Your task to perform on an android device: clear all cookies in the chrome app Image 0: 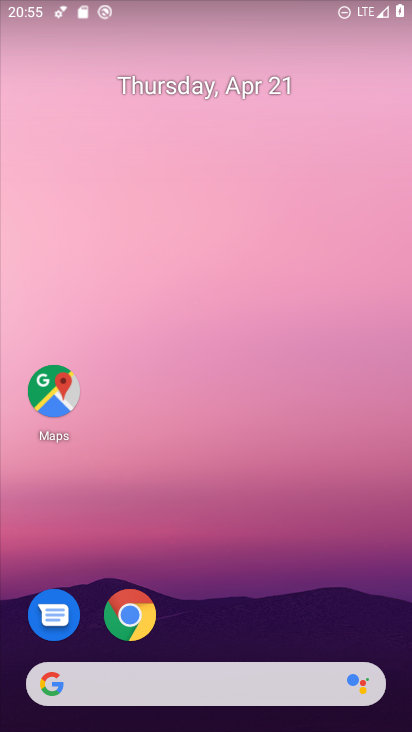
Step 0: drag from (222, 134) to (235, 67)
Your task to perform on an android device: clear all cookies in the chrome app Image 1: 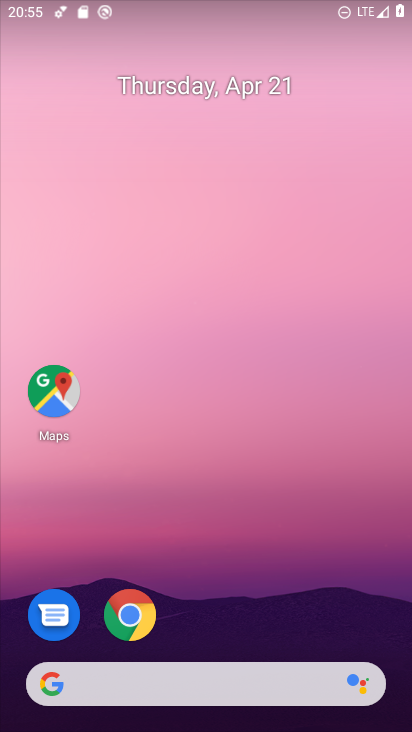
Step 1: click (136, 613)
Your task to perform on an android device: clear all cookies in the chrome app Image 2: 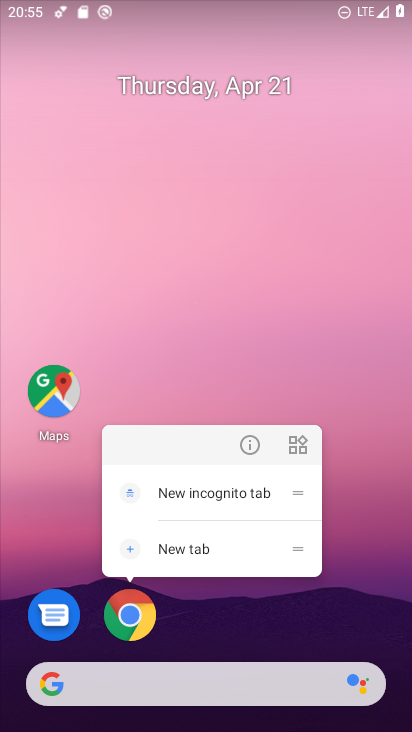
Step 2: click (246, 449)
Your task to perform on an android device: clear all cookies in the chrome app Image 3: 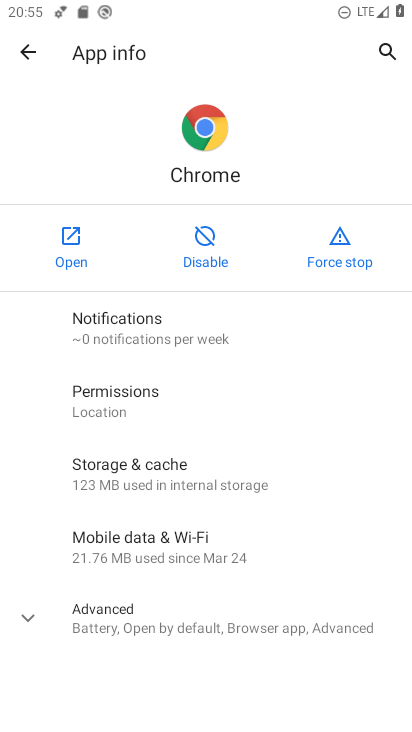
Step 3: click (61, 244)
Your task to perform on an android device: clear all cookies in the chrome app Image 4: 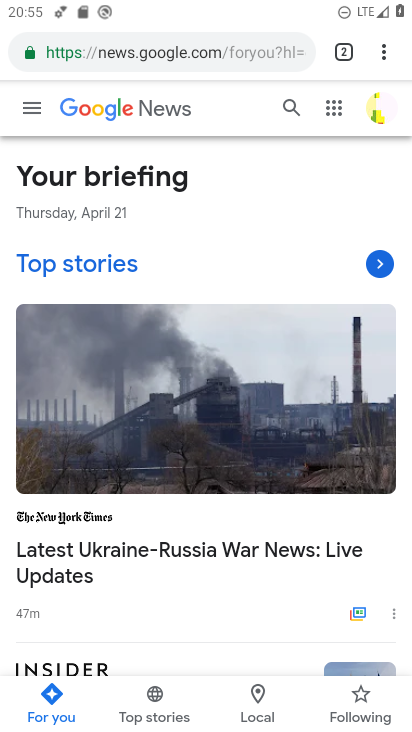
Step 4: drag from (210, 605) to (264, 238)
Your task to perform on an android device: clear all cookies in the chrome app Image 5: 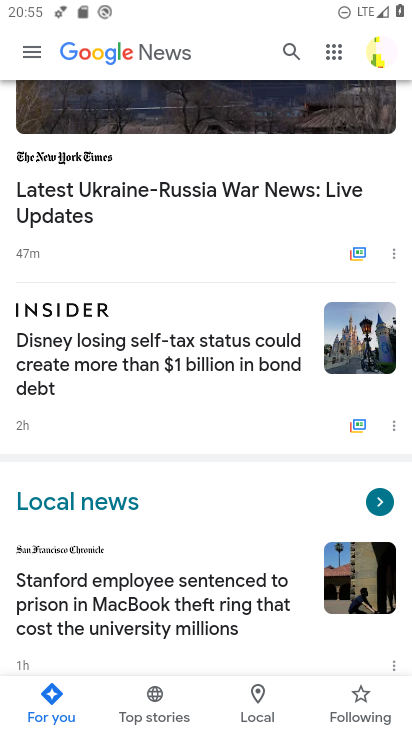
Step 5: press home button
Your task to perform on an android device: clear all cookies in the chrome app Image 6: 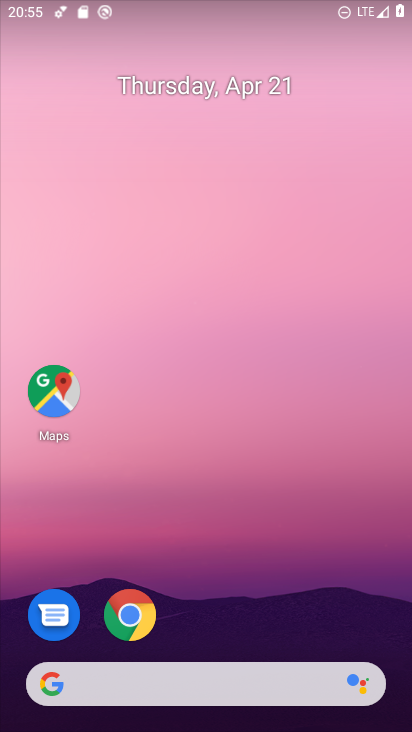
Step 6: drag from (276, 333) to (337, 82)
Your task to perform on an android device: clear all cookies in the chrome app Image 7: 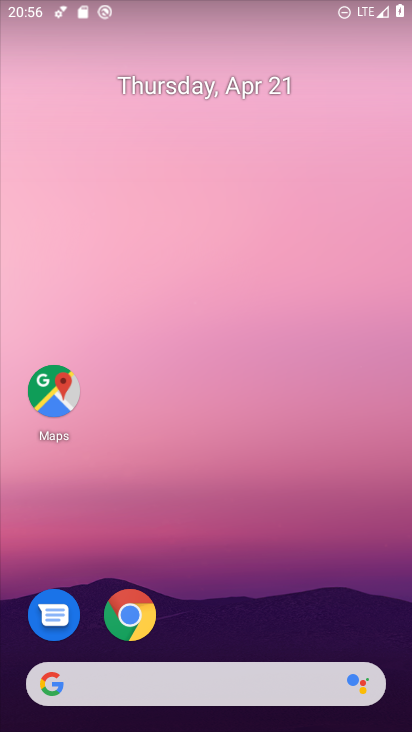
Step 7: click (139, 613)
Your task to perform on an android device: clear all cookies in the chrome app Image 8: 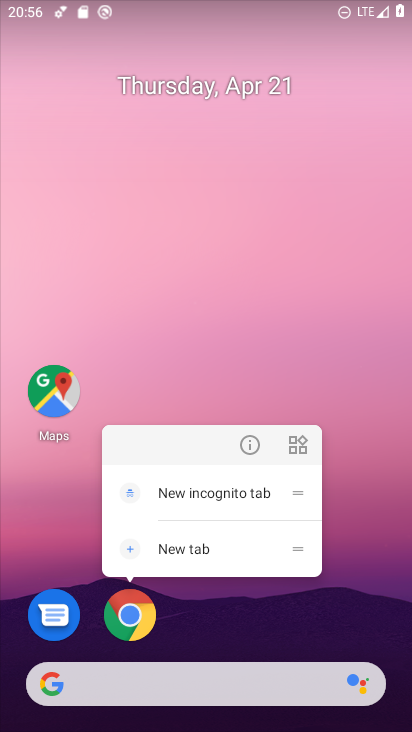
Step 8: click (255, 446)
Your task to perform on an android device: clear all cookies in the chrome app Image 9: 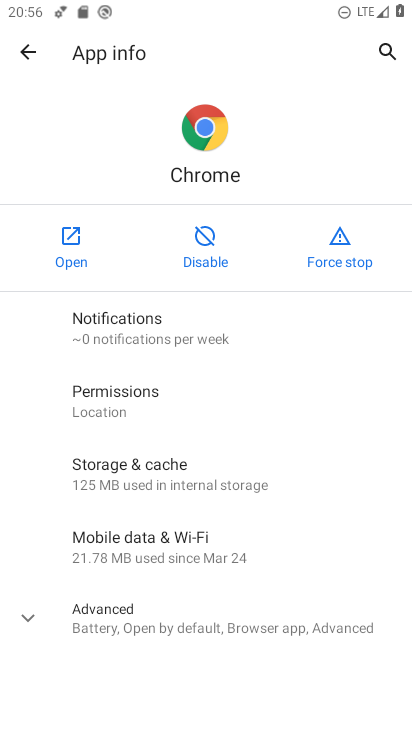
Step 9: click (63, 261)
Your task to perform on an android device: clear all cookies in the chrome app Image 10: 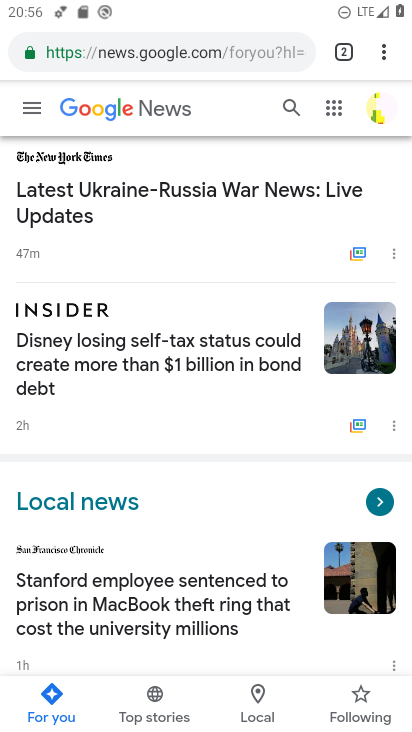
Step 10: drag from (377, 53) to (214, 344)
Your task to perform on an android device: clear all cookies in the chrome app Image 11: 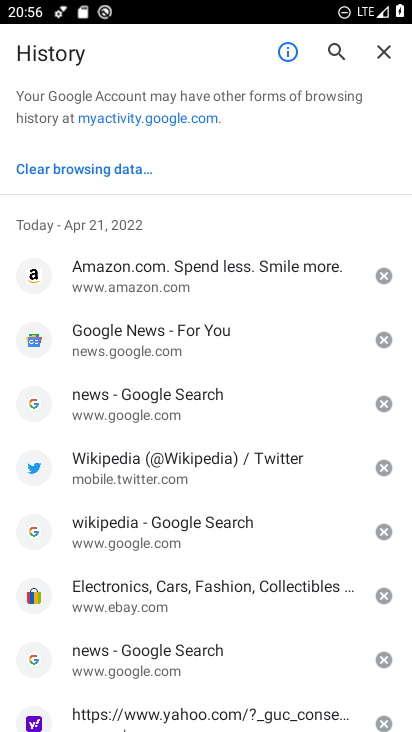
Step 11: click (69, 168)
Your task to perform on an android device: clear all cookies in the chrome app Image 12: 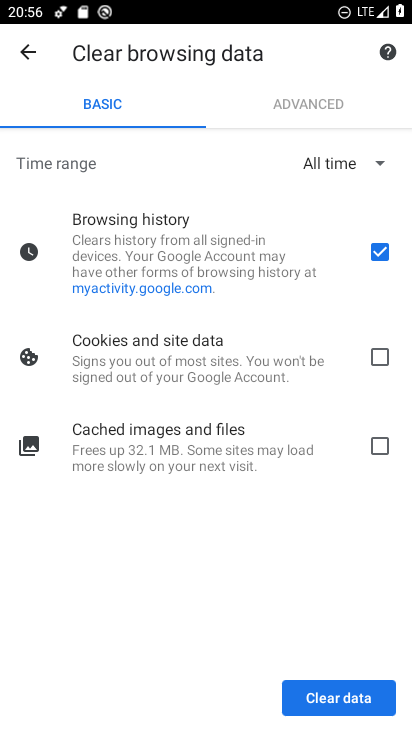
Step 12: click (374, 354)
Your task to perform on an android device: clear all cookies in the chrome app Image 13: 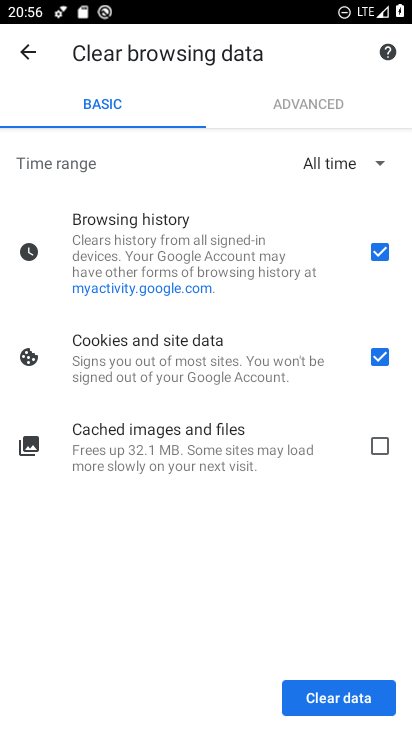
Step 13: click (377, 247)
Your task to perform on an android device: clear all cookies in the chrome app Image 14: 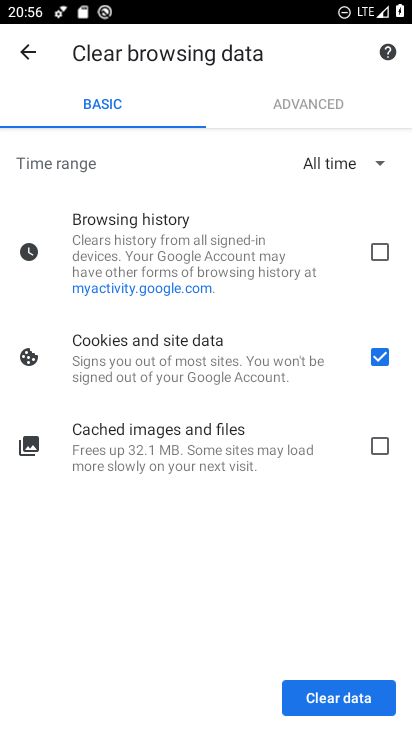
Step 14: click (312, 689)
Your task to perform on an android device: clear all cookies in the chrome app Image 15: 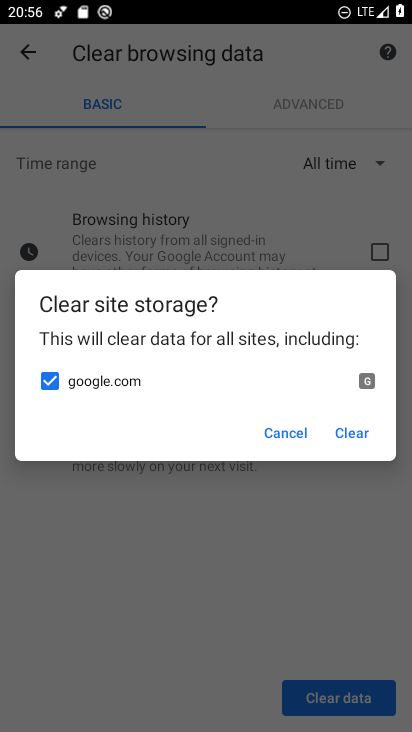
Step 15: click (339, 455)
Your task to perform on an android device: clear all cookies in the chrome app Image 16: 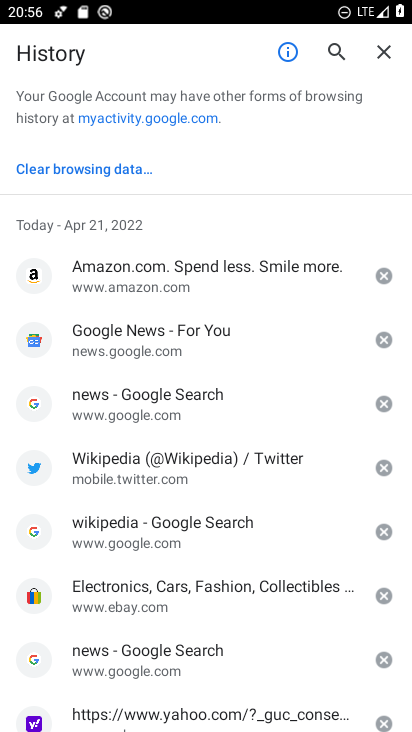
Step 16: task complete